Your task to perform on an android device: Search for sushi restaurants on Maps Image 0: 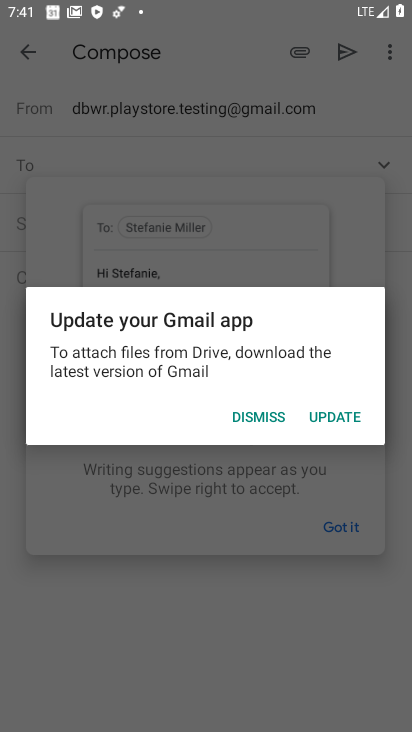
Step 0: press home button
Your task to perform on an android device: Search for sushi restaurants on Maps Image 1: 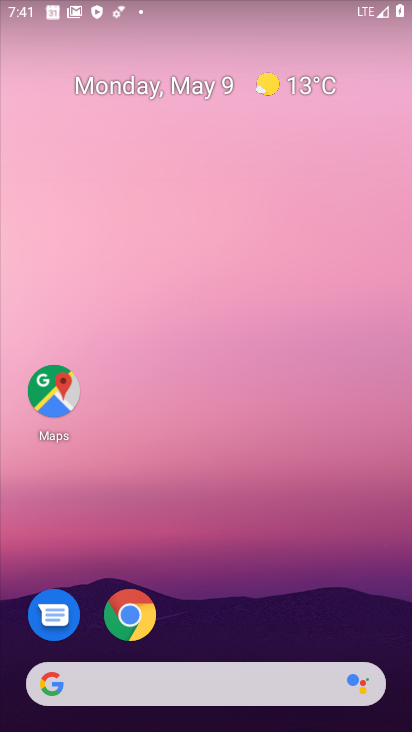
Step 1: click (57, 374)
Your task to perform on an android device: Search for sushi restaurants on Maps Image 2: 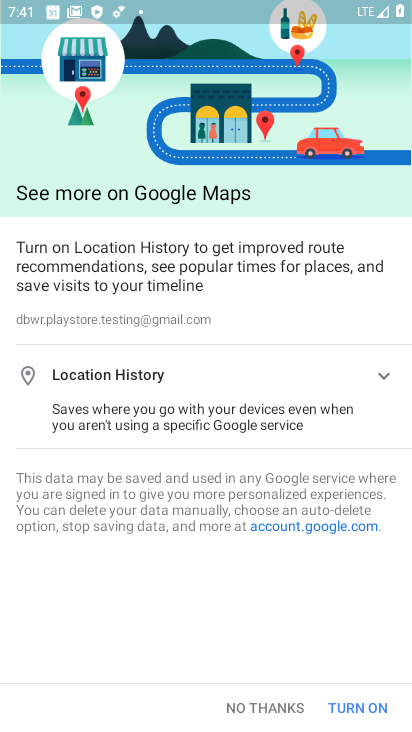
Step 2: click (354, 710)
Your task to perform on an android device: Search for sushi restaurants on Maps Image 3: 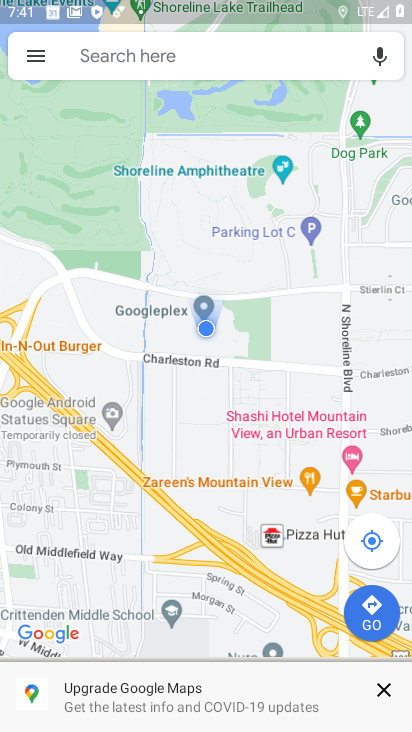
Step 3: click (219, 56)
Your task to perform on an android device: Search for sushi restaurants on Maps Image 4: 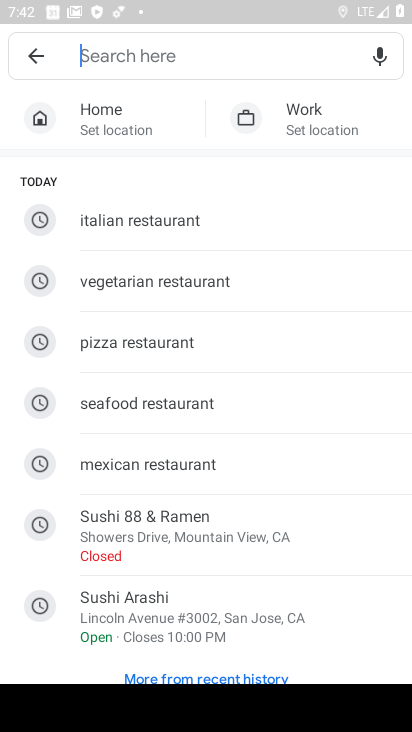
Step 4: type "sushi restaurant"
Your task to perform on an android device: Search for sushi restaurants on Maps Image 5: 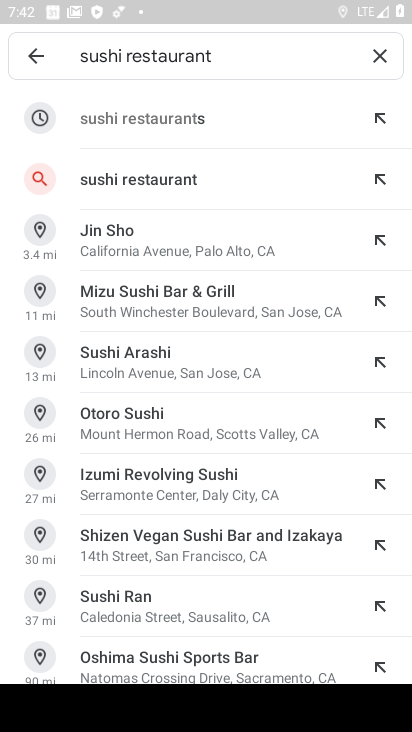
Step 5: click (157, 173)
Your task to perform on an android device: Search for sushi restaurants on Maps Image 6: 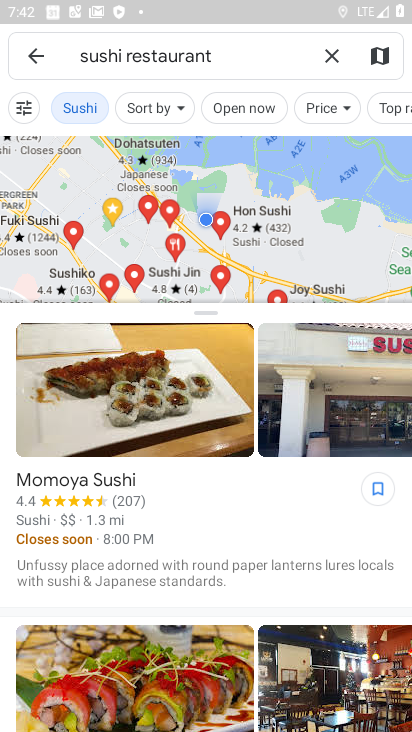
Step 6: task complete